Your task to perform on an android device: Search for pizza restaurants on Maps Image 0: 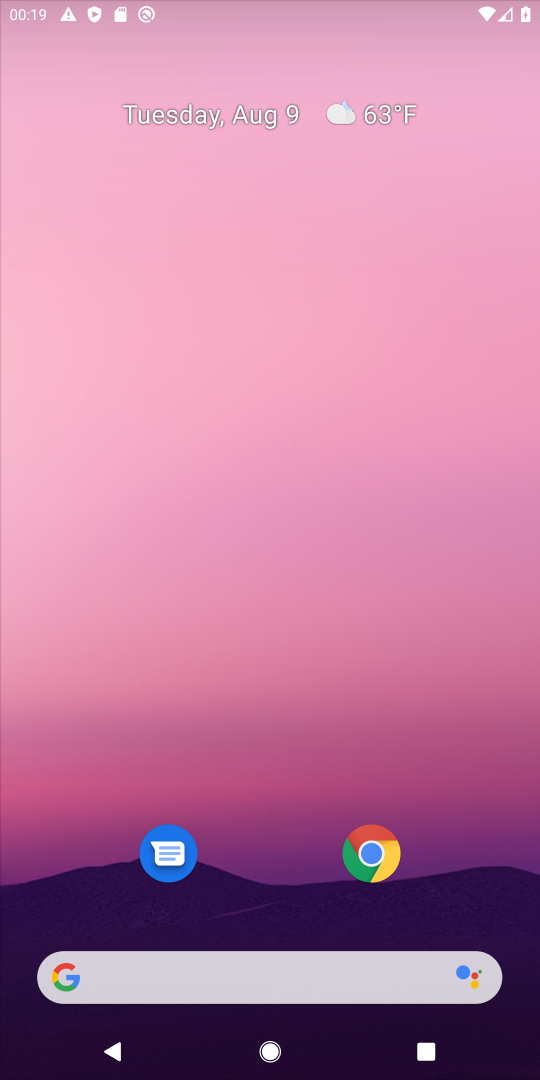
Step 0: press home button
Your task to perform on an android device: Search for pizza restaurants on Maps Image 1: 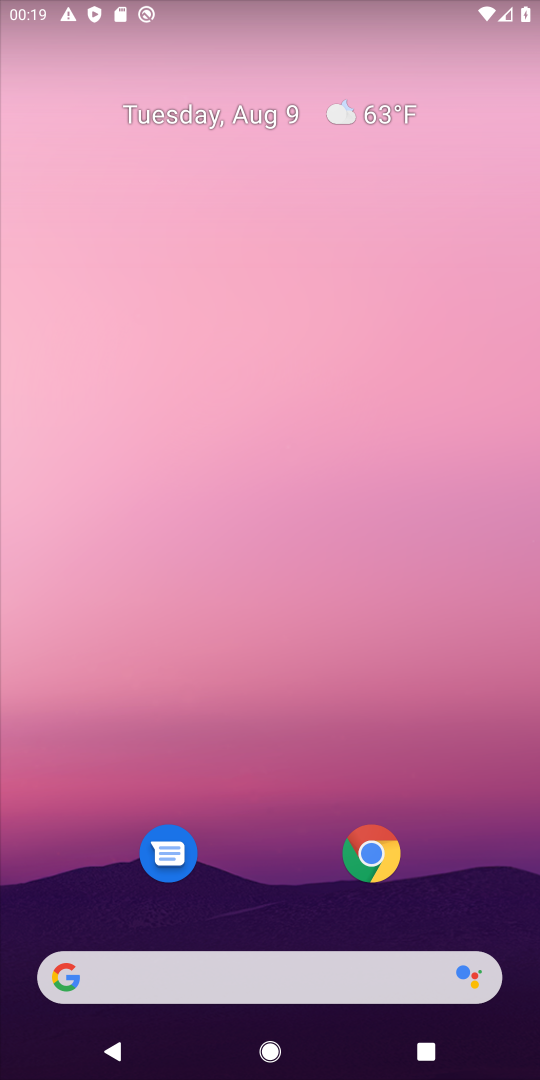
Step 1: drag from (251, 767) to (381, 1)
Your task to perform on an android device: Search for pizza restaurants on Maps Image 2: 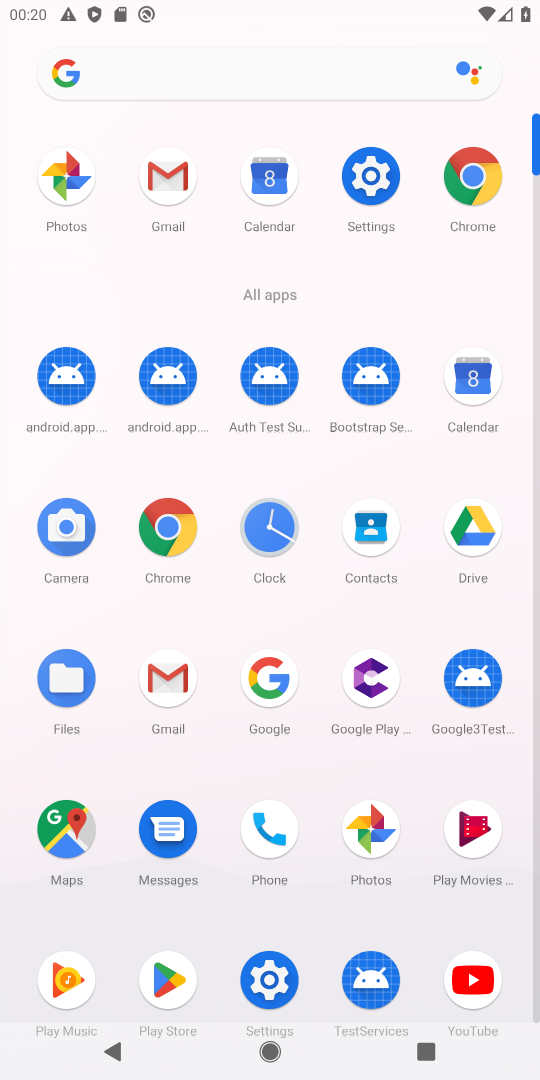
Step 2: click (59, 823)
Your task to perform on an android device: Search for pizza restaurants on Maps Image 3: 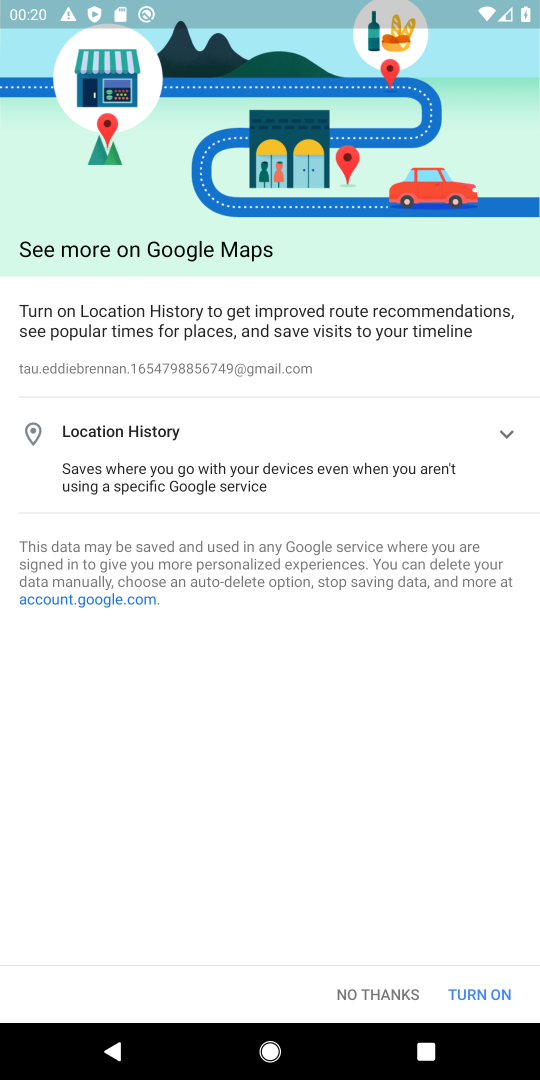
Step 3: click (397, 997)
Your task to perform on an android device: Search for pizza restaurants on Maps Image 4: 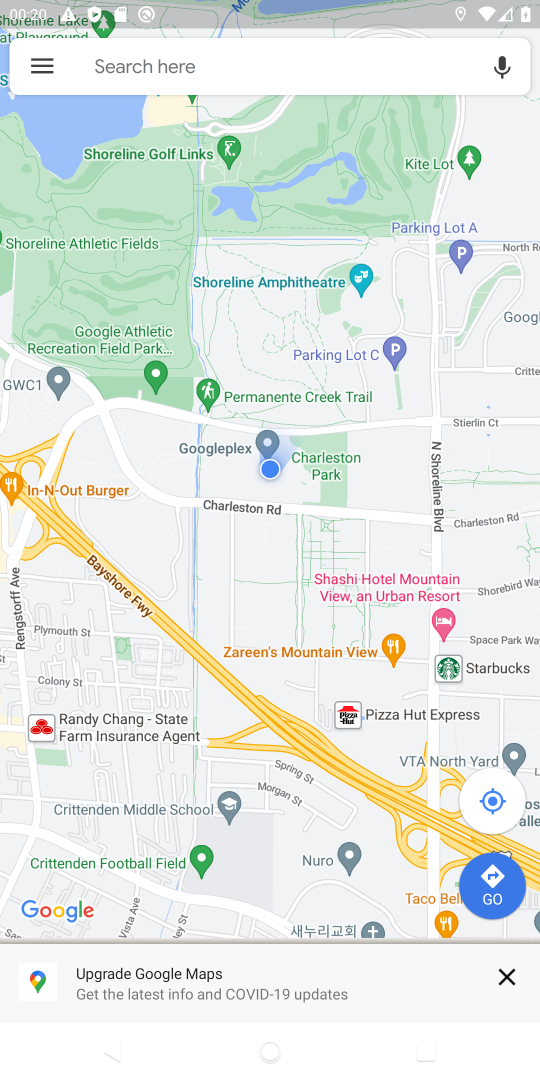
Step 4: click (259, 71)
Your task to perform on an android device: Search for pizza restaurants on Maps Image 5: 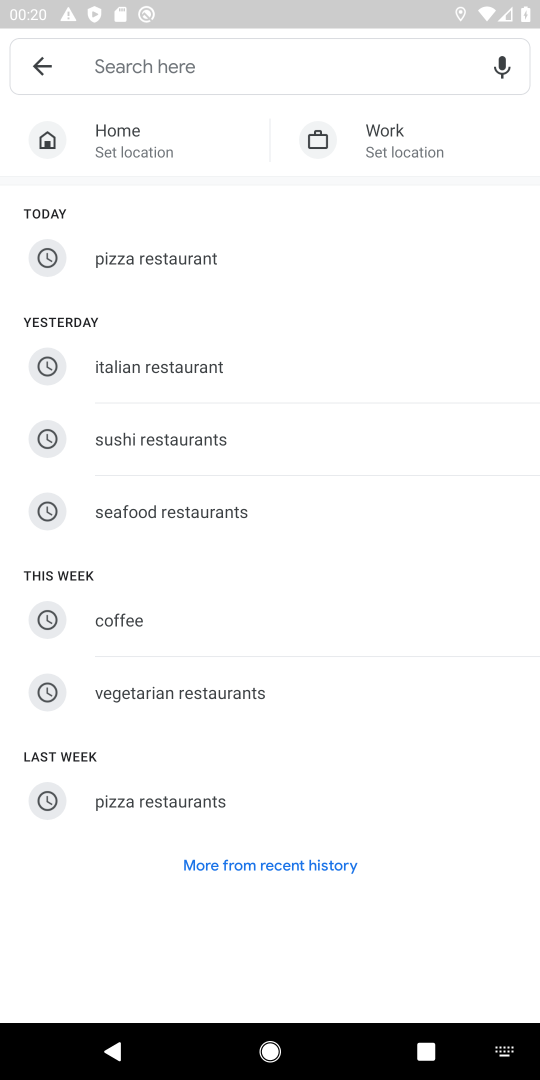
Step 5: type "pizza restaurants"
Your task to perform on an android device: Search for pizza restaurants on Maps Image 6: 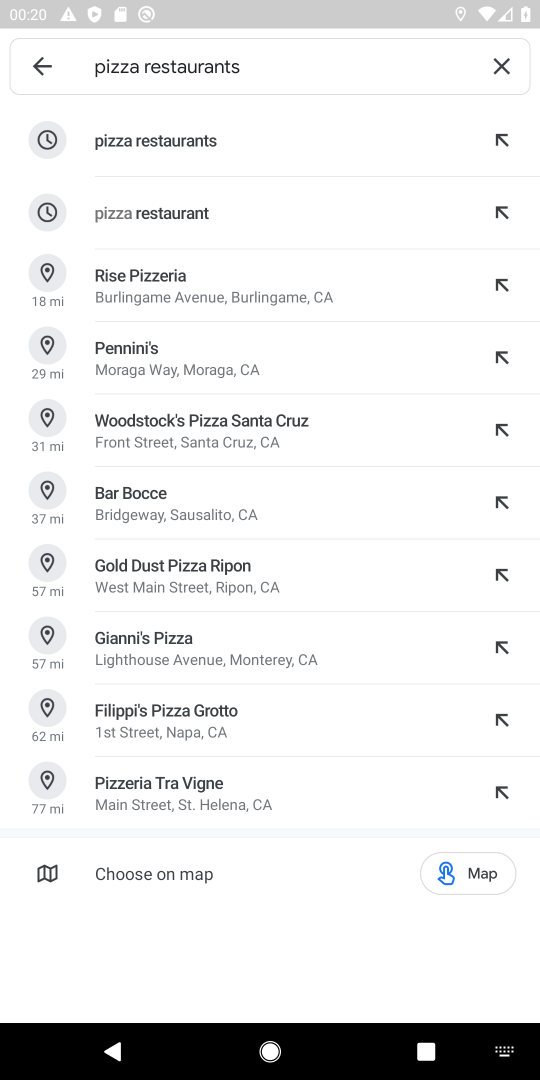
Step 6: click (127, 140)
Your task to perform on an android device: Search for pizza restaurants on Maps Image 7: 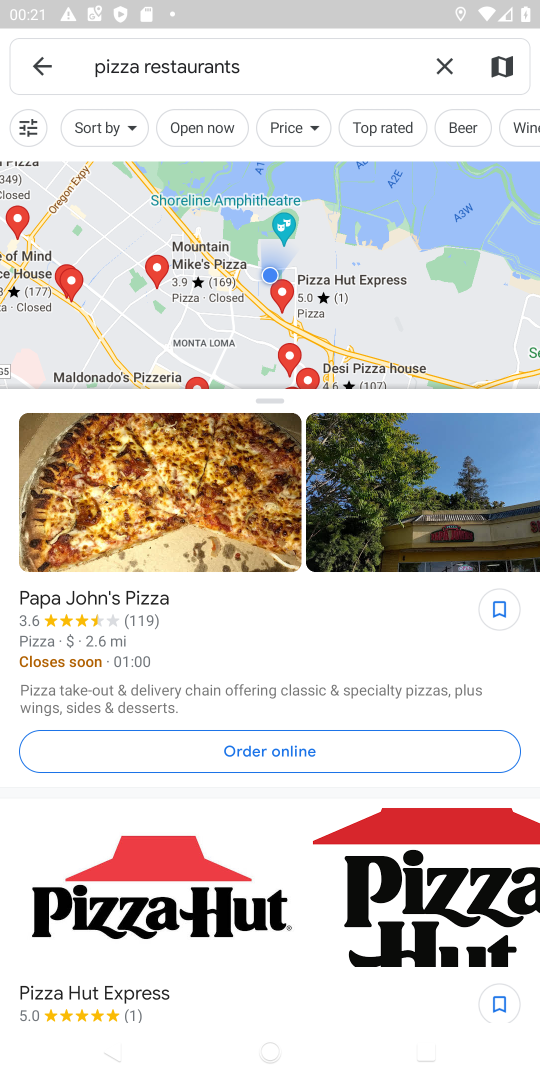
Step 7: task complete